Your task to perform on an android device: empty trash in the gmail app Image 0: 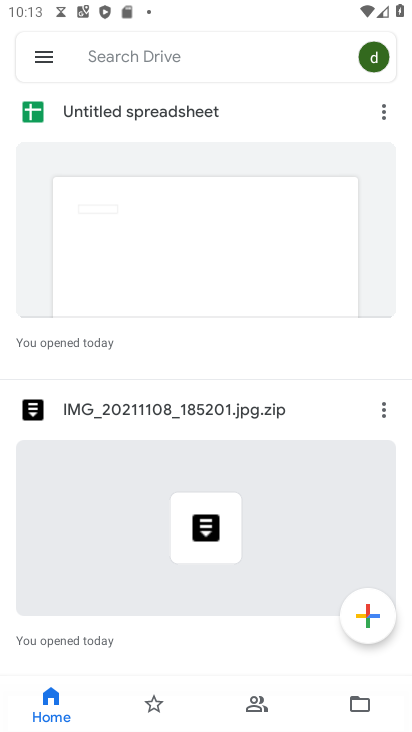
Step 0: press home button
Your task to perform on an android device: empty trash in the gmail app Image 1: 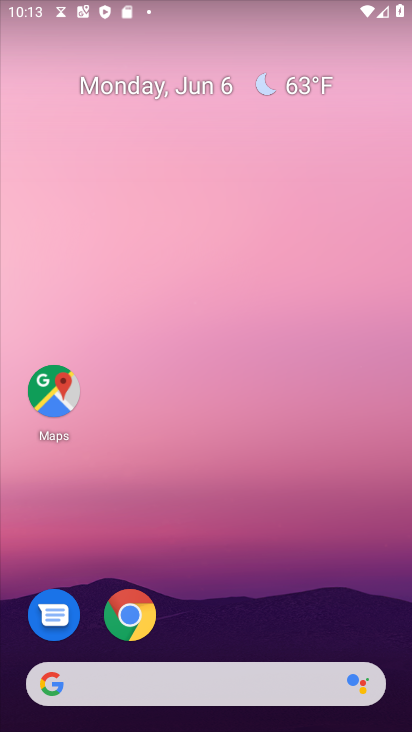
Step 1: drag from (223, 643) to (229, 65)
Your task to perform on an android device: empty trash in the gmail app Image 2: 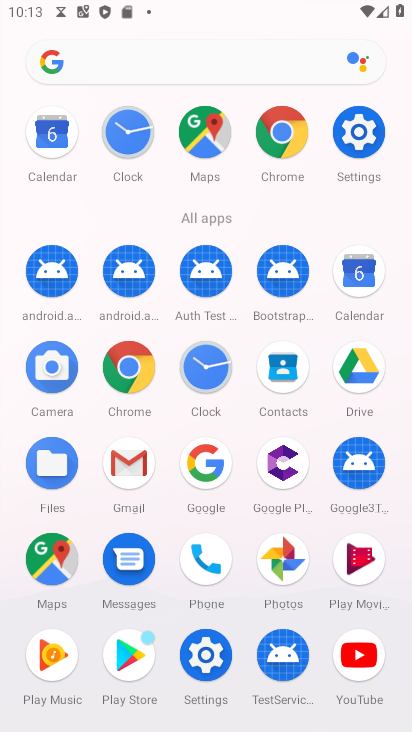
Step 2: click (125, 461)
Your task to perform on an android device: empty trash in the gmail app Image 3: 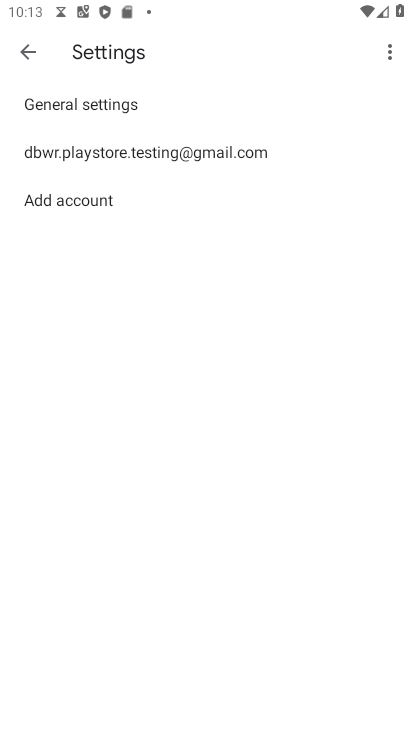
Step 3: click (34, 37)
Your task to perform on an android device: empty trash in the gmail app Image 4: 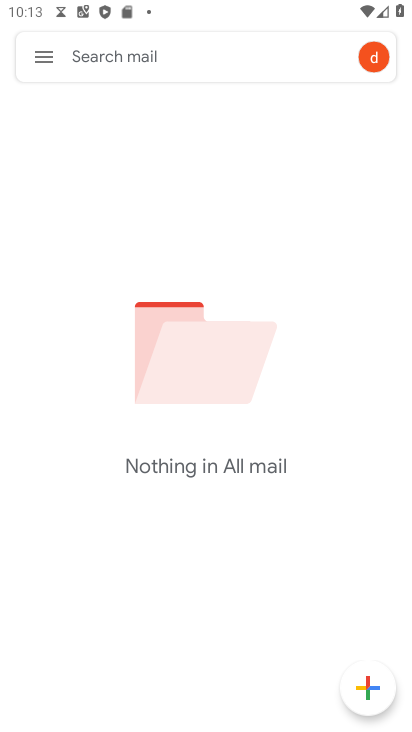
Step 4: click (43, 55)
Your task to perform on an android device: empty trash in the gmail app Image 5: 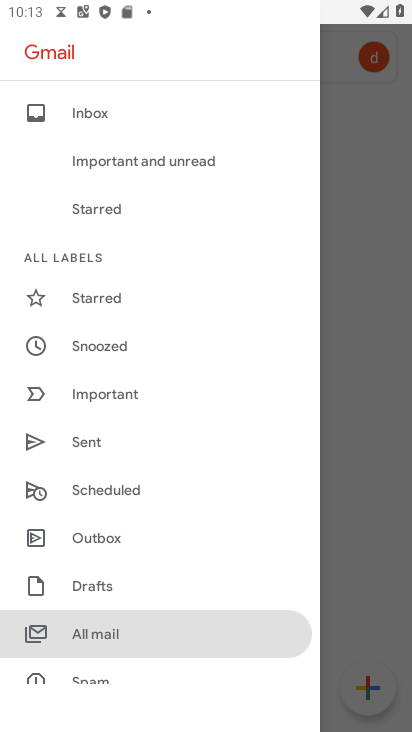
Step 5: drag from (108, 604) to (118, 120)
Your task to perform on an android device: empty trash in the gmail app Image 6: 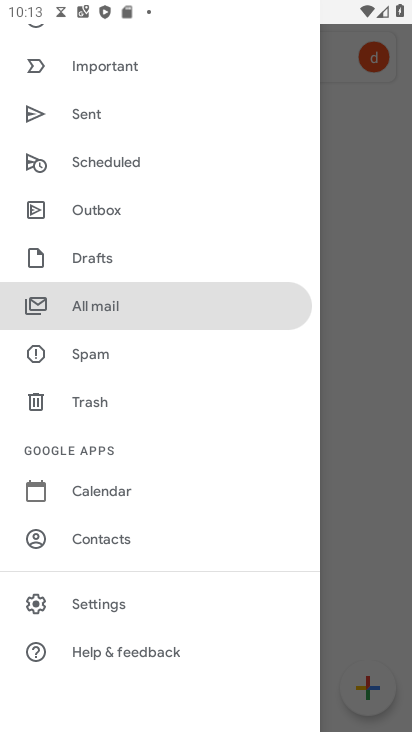
Step 6: click (107, 399)
Your task to perform on an android device: empty trash in the gmail app Image 7: 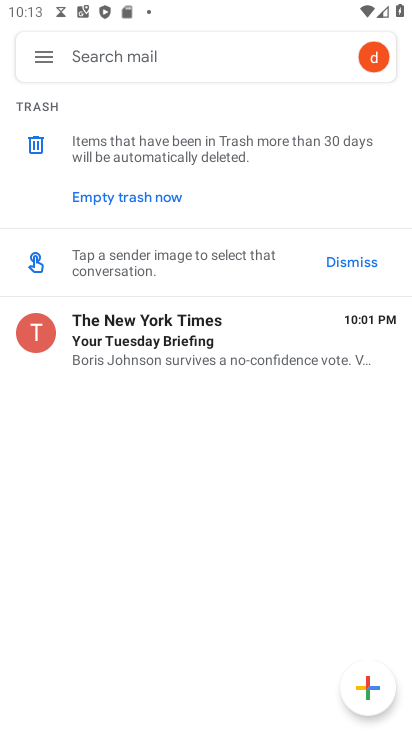
Step 7: click (124, 199)
Your task to perform on an android device: empty trash in the gmail app Image 8: 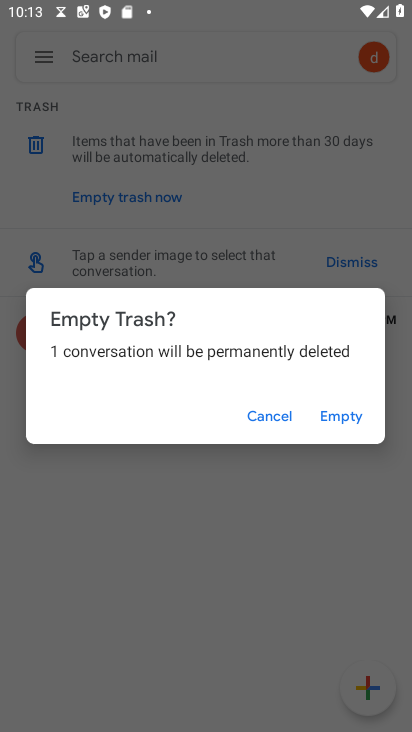
Step 8: click (347, 419)
Your task to perform on an android device: empty trash in the gmail app Image 9: 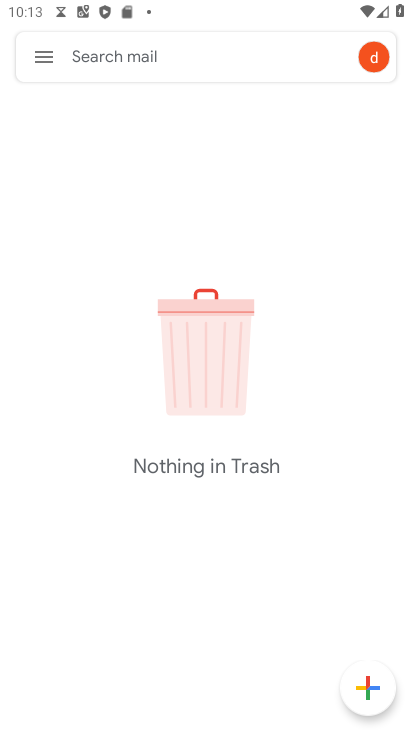
Step 9: task complete